Your task to perform on an android device: Open settings Image 0: 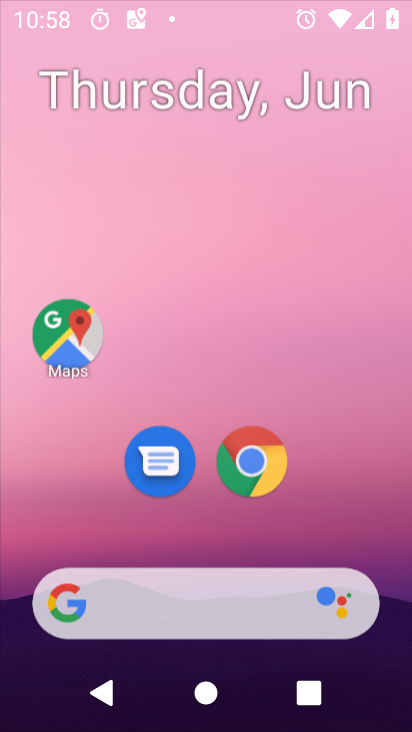
Step 0: press home button
Your task to perform on an android device: Open settings Image 1: 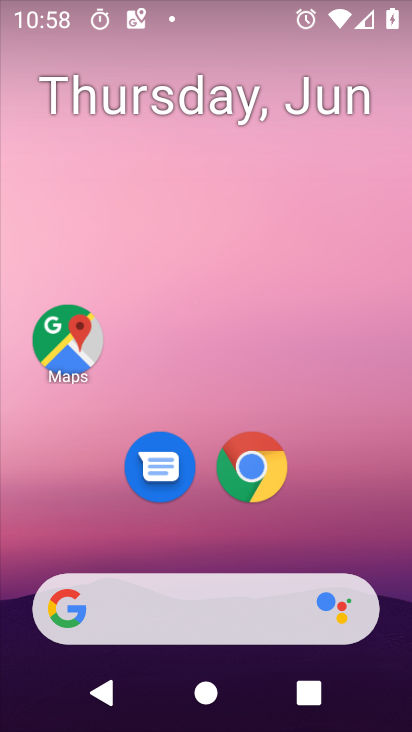
Step 1: drag from (38, 575) to (309, 120)
Your task to perform on an android device: Open settings Image 2: 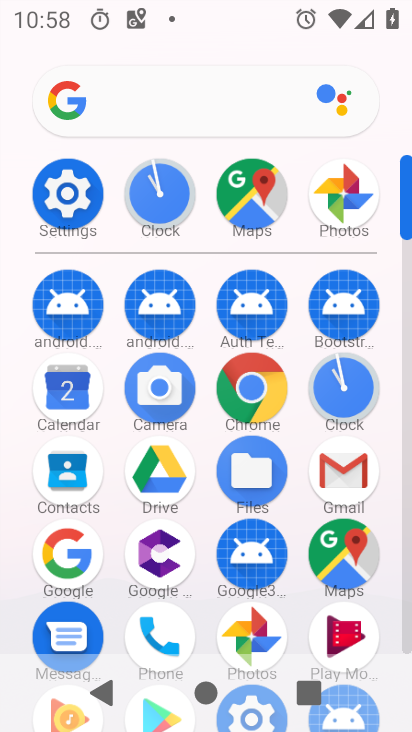
Step 2: click (42, 199)
Your task to perform on an android device: Open settings Image 3: 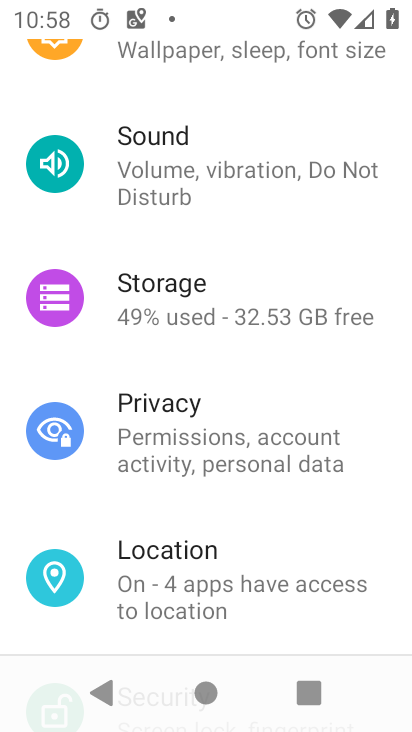
Step 3: task complete